Your task to perform on an android device: toggle show notifications on the lock screen Image 0: 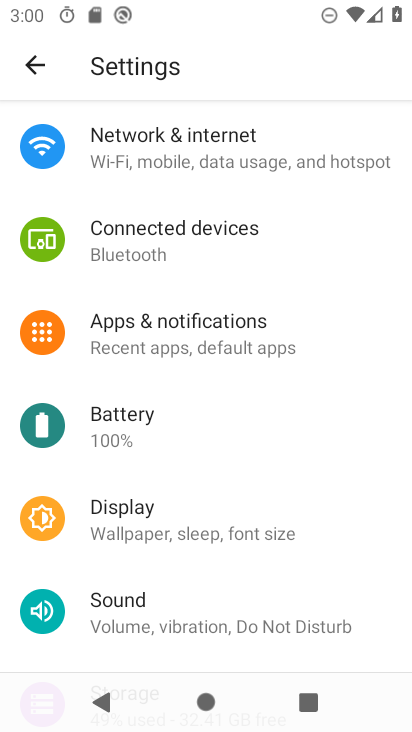
Step 0: click (212, 325)
Your task to perform on an android device: toggle show notifications on the lock screen Image 1: 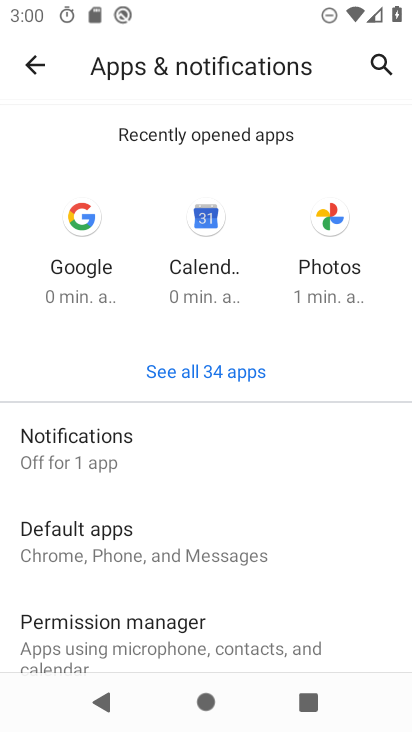
Step 1: click (180, 449)
Your task to perform on an android device: toggle show notifications on the lock screen Image 2: 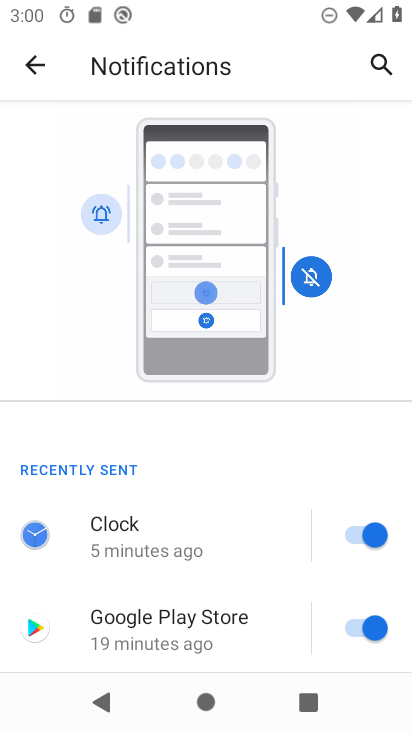
Step 2: click (203, 97)
Your task to perform on an android device: toggle show notifications on the lock screen Image 3: 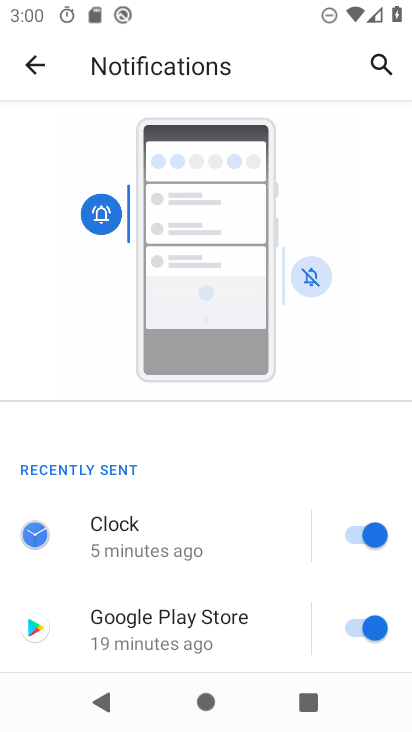
Step 3: drag from (204, 249) to (208, 99)
Your task to perform on an android device: toggle show notifications on the lock screen Image 4: 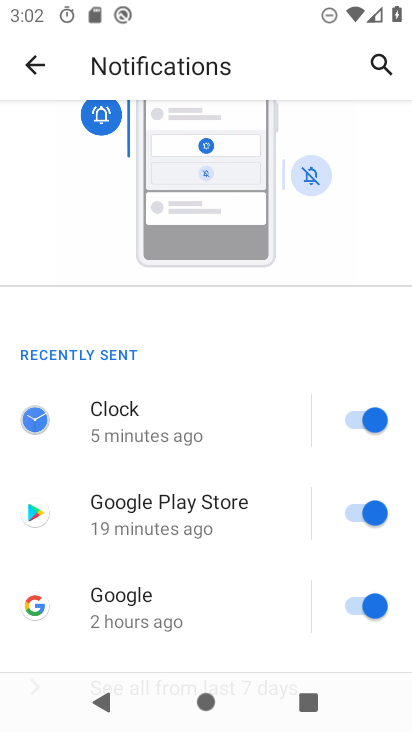
Step 4: drag from (178, 575) to (217, 194)
Your task to perform on an android device: toggle show notifications on the lock screen Image 5: 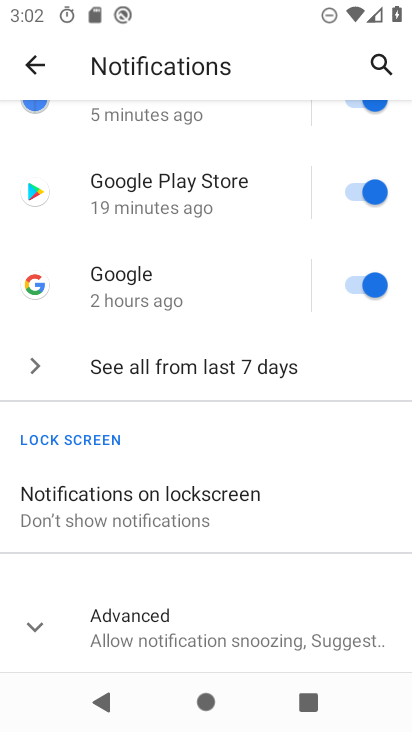
Step 5: click (201, 520)
Your task to perform on an android device: toggle show notifications on the lock screen Image 6: 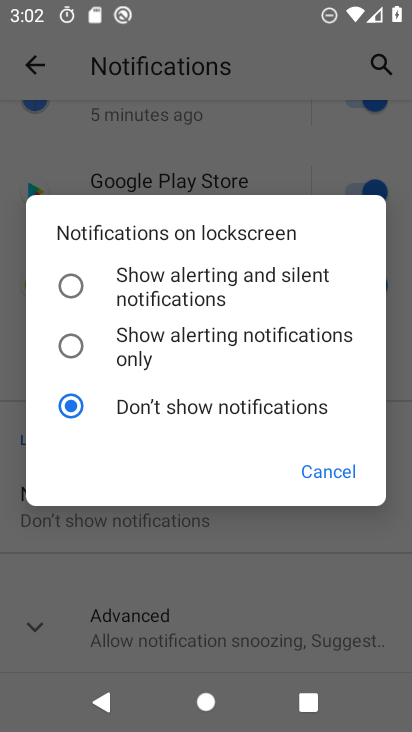
Step 6: click (184, 325)
Your task to perform on an android device: toggle show notifications on the lock screen Image 7: 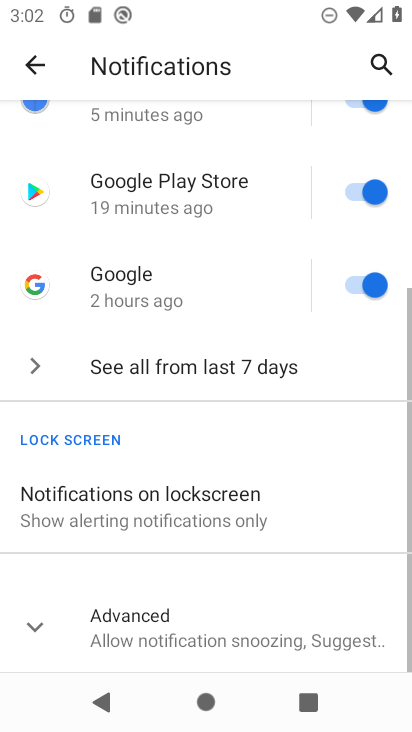
Step 7: task complete